Your task to perform on an android device: see creations saved in the google photos Image 0: 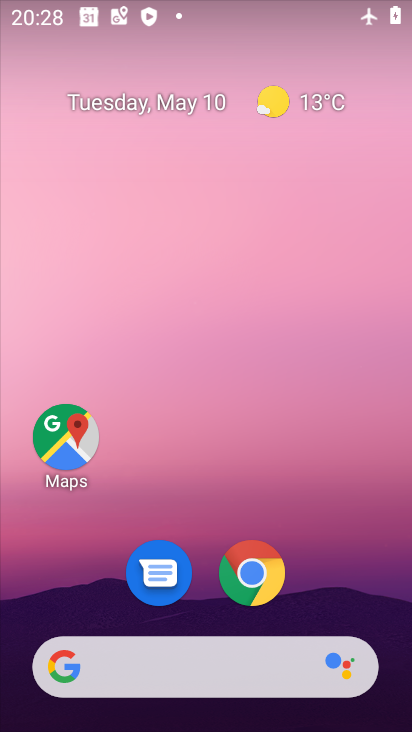
Step 0: drag from (335, 610) to (341, 1)
Your task to perform on an android device: see creations saved in the google photos Image 1: 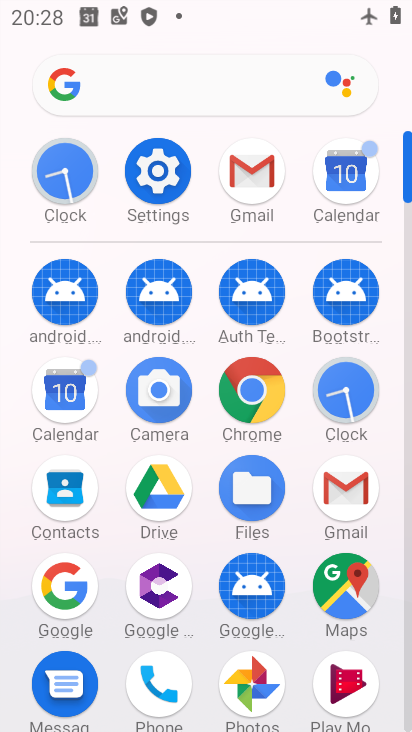
Step 1: click (254, 683)
Your task to perform on an android device: see creations saved in the google photos Image 2: 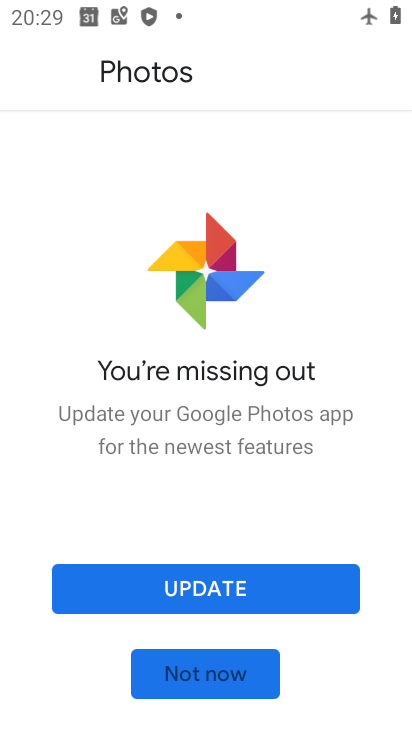
Step 2: click (202, 677)
Your task to perform on an android device: see creations saved in the google photos Image 3: 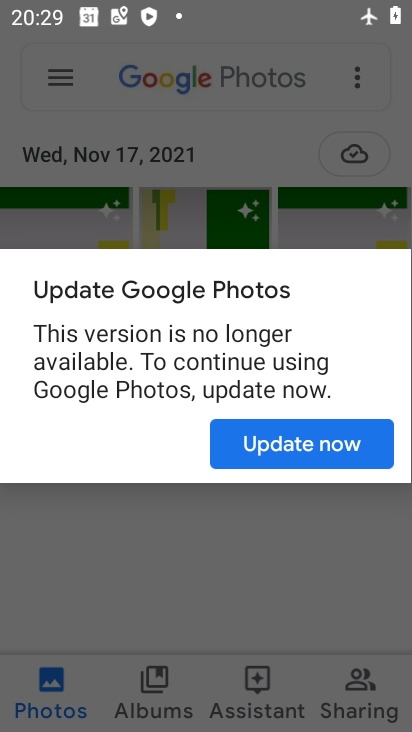
Step 3: click (279, 438)
Your task to perform on an android device: see creations saved in the google photos Image 4: 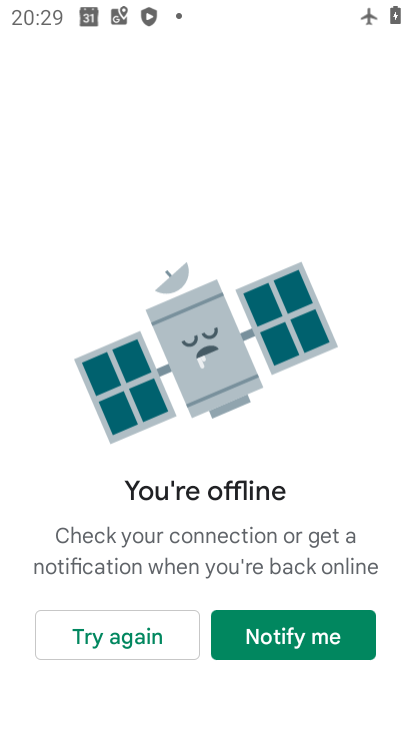
Step 4: press back button
Your task to perform on an android device: see creations saved in the google photos Image 5: 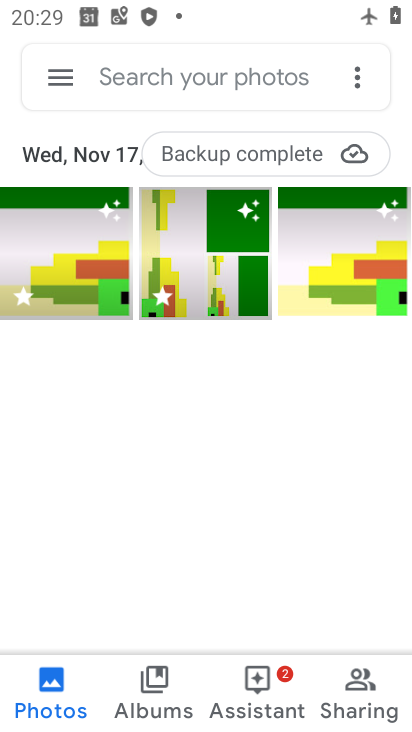
Step 5: click (124, 71)
Your task to perform on an android device: see creations saved in the google photos Image 6: 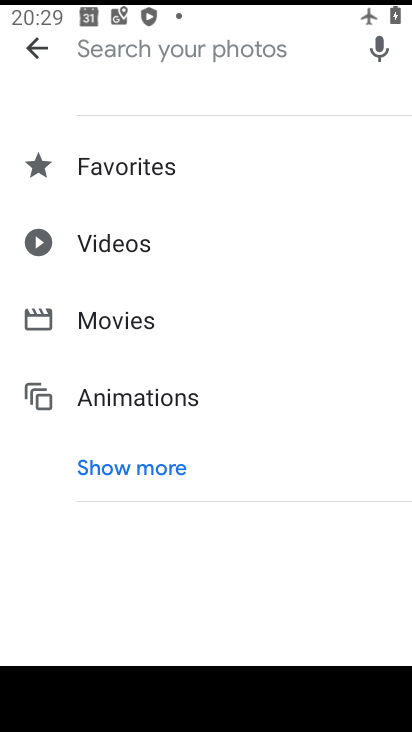
Step 6: click (111, 470)
Your task to perform on an android device: see creations saved in the google photos Image 7: 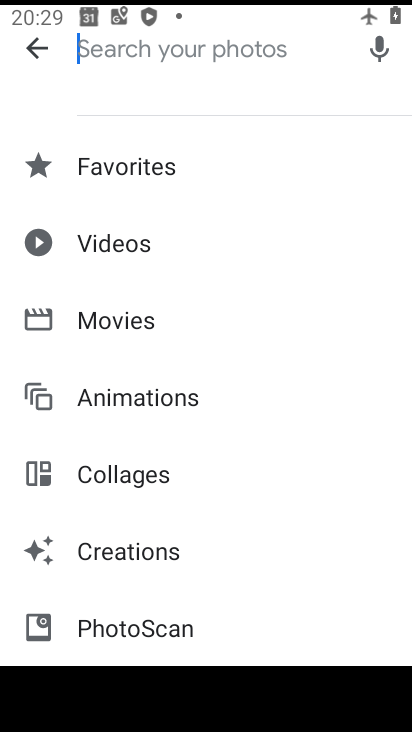
Step 7: click (111, 554)
Your task to perform on an android device: see creations saved in the google photos Image 8: 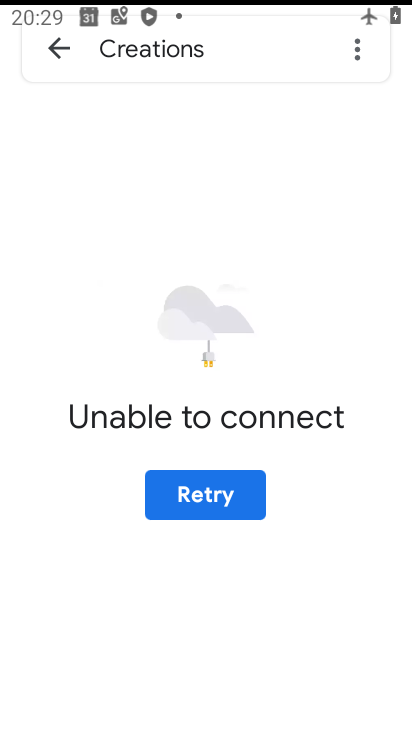
Step 8: task complete